Your task to perform on an android device: change notifications settings Image 0: 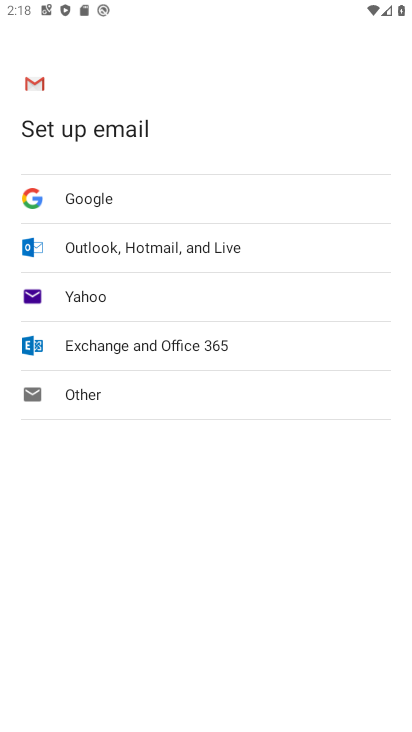
Step 0: press home button
Your task to perform on an android device: change notifications settings Image 1: 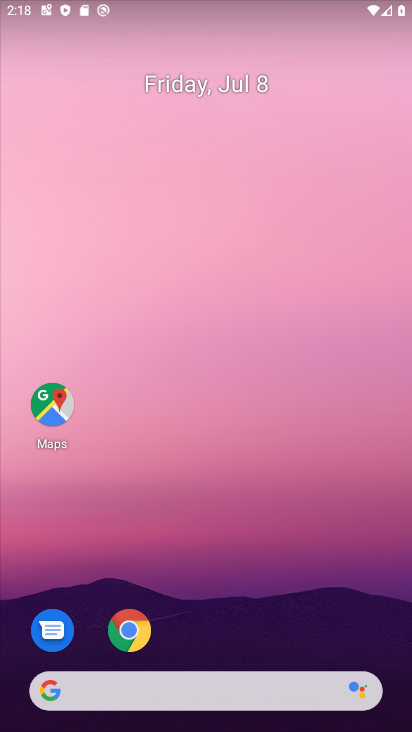
Step 1: drag from (318, 638) to (164, 9)
Your task to perform on an android device: change notifications settings Image 2: 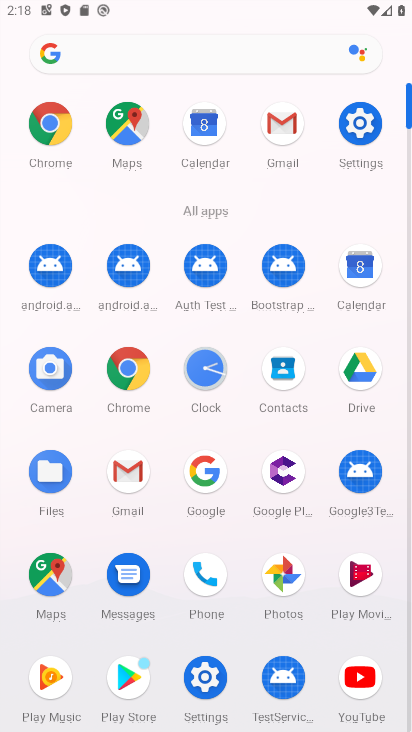
Step 2: click (333, 130)
Your task to perform on an android device: change notifications settings Image 3: 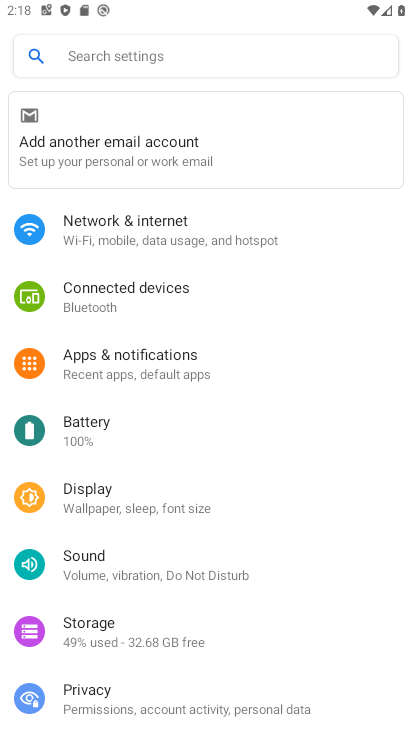
Step 3: click (180, 390)
Your task to perform on an android device: change notifications settings Image 4: 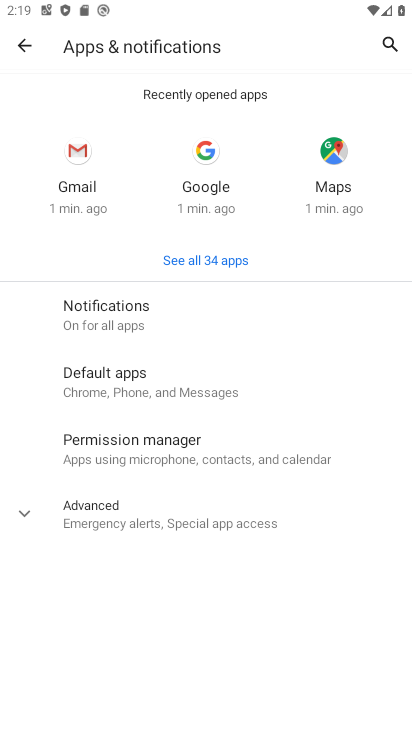
Step 4: click (118, 334)
Your task to perform on an android device: change notifications settings Image 5: 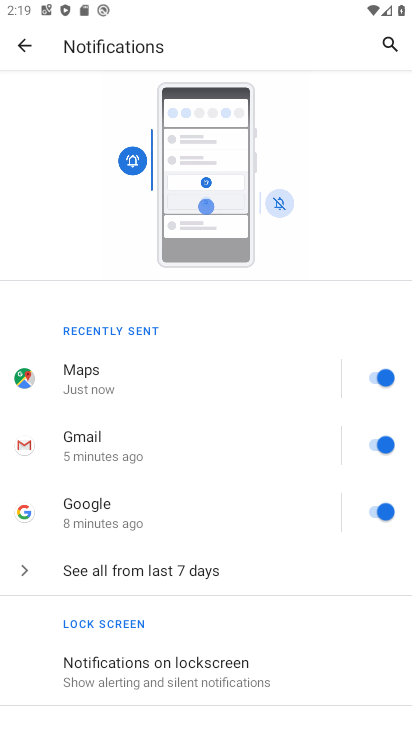
Step 5: task complete